Your task to perform on an android device: turn off airplane mode Image 0: 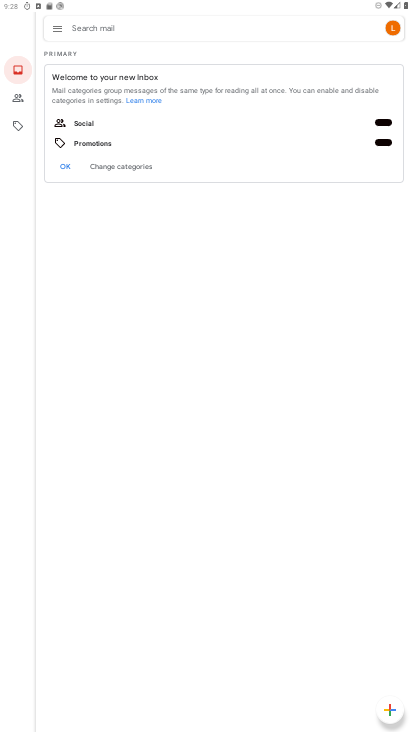
Step 0: press home button
Your task to perform on an android device: turn off airplane mode Image 1: 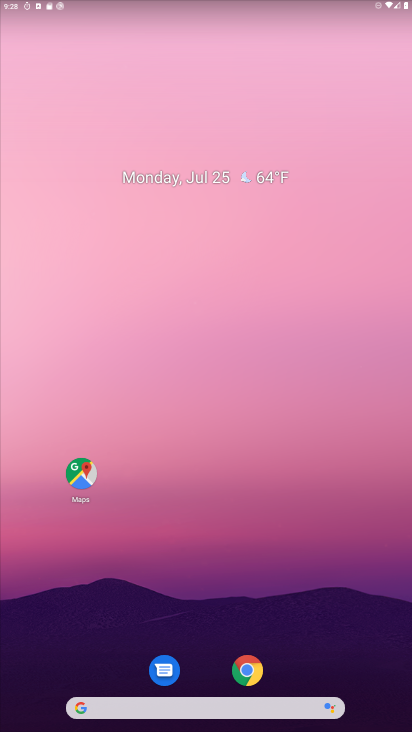
Step 1: task complete